Your task to perform on an android device: Go to privacy settings Image 0: 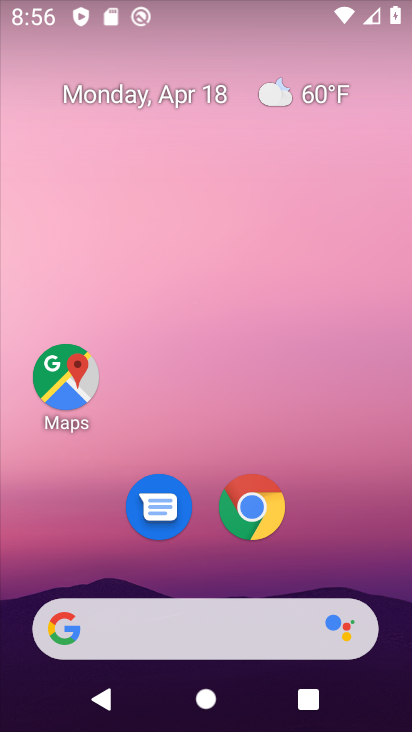
Step 0: drag from (344, 538) to (309, 143)
Your task to perform on an android device: Go to privacy settings Image 1: 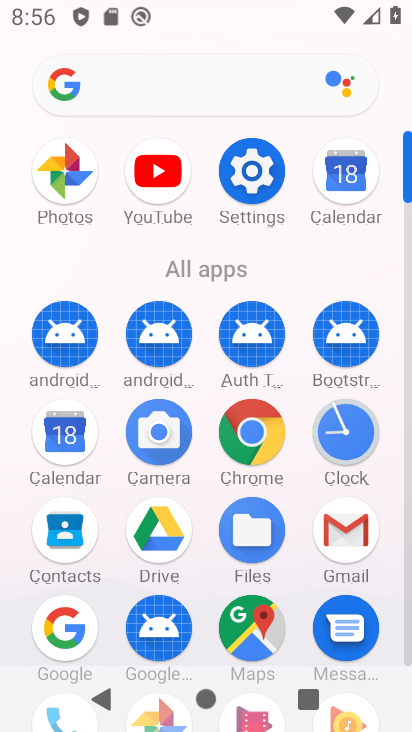
Step 1: click (303, 627)
Your task to perform on an android device: Go to privacy settings Image 2: 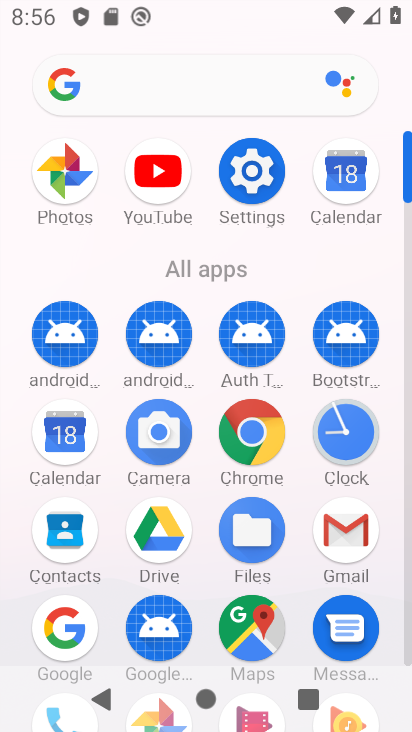
Step 2: click (244, 193)
Your task to perform on an android device: Go to privacy settings Image 3: 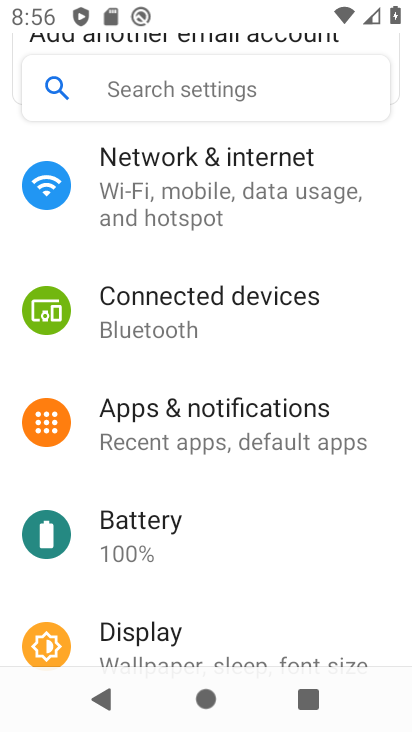
Step 3: drag from (291, 578) to (278, 218)
Your task to perform on an android device: Go to privacy settings Image 4: 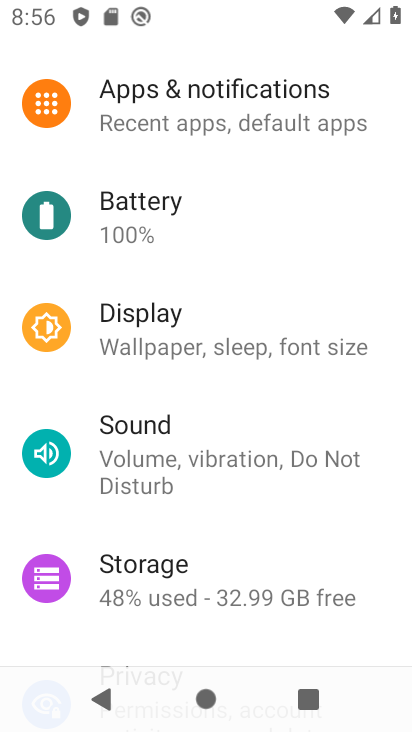
Step 4: drag from (268, 558) to (271, 229)
Your task to perform on an android device: Go to privacy settings Image 5: 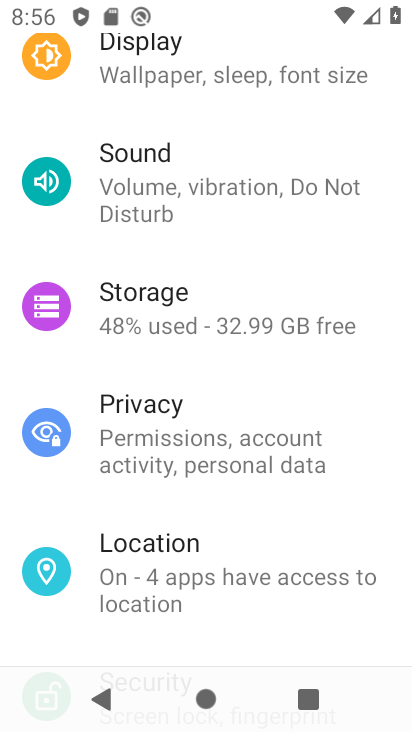
Step 5: click (228, 450)
Your task to perform on an android device: Go to privacy settings Image 6: 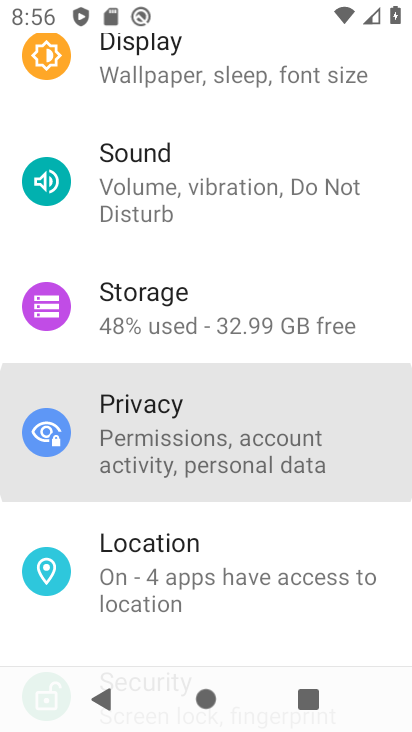
Step 6: click (228, 449)
Your task to perform on an android device: Go to privacy settings Image 7: 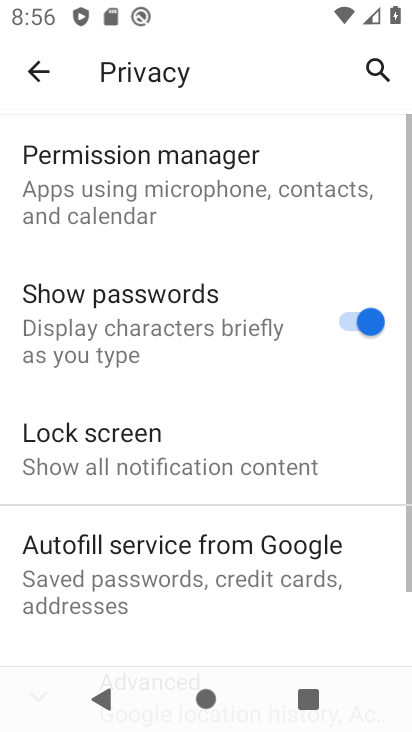
Step 7: task complete